Your task to perform on an android device: toggle notifications settings in the gmail app Image 0: 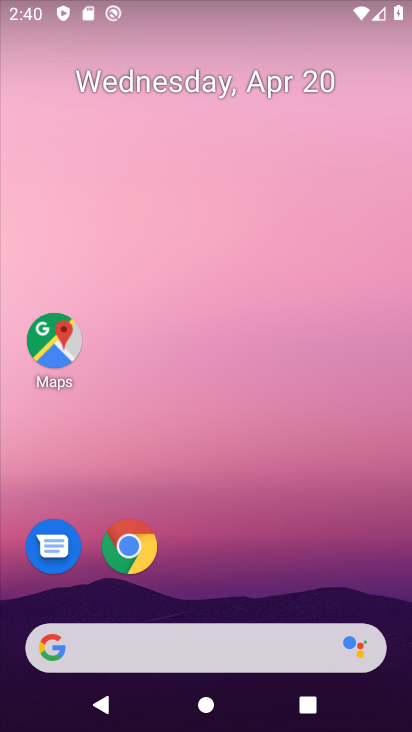
Step 0: drag from (318, 455) to (318, 79)
Your task to perform on an android device: toggle notifications settings in the gmail app Image 1: 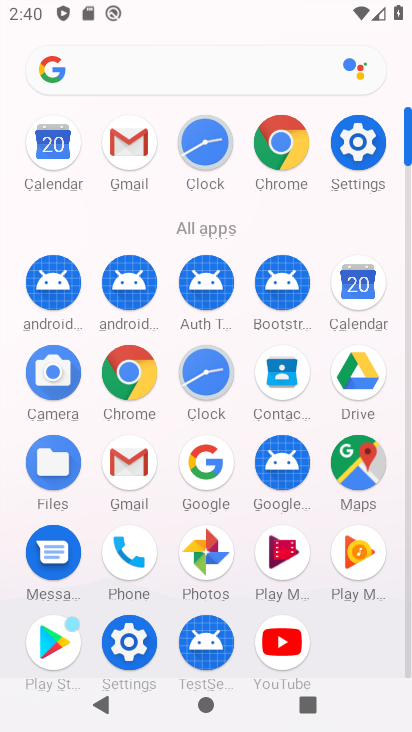
Step 1: click (132, 481)
Your task to perform on an android device: toggle notifications settings in the gmail app Image 2: 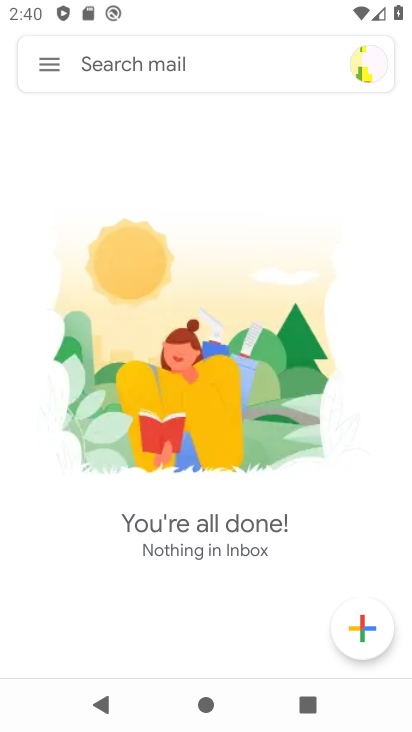
Step 2: click (58, 68)
Your task to perform on an android device: toggle notifications settings in the gmail app Image 3: 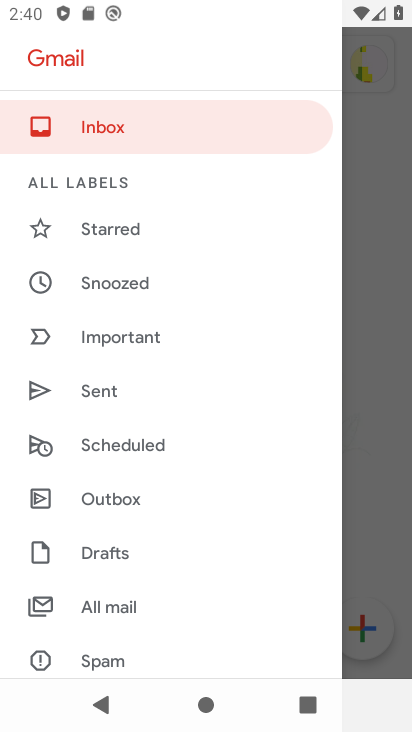
Step 3: drag from (139, 632) to (152, 311)
Your task to perform on an android device: toggle notifications settings in the gmail app Image 4: 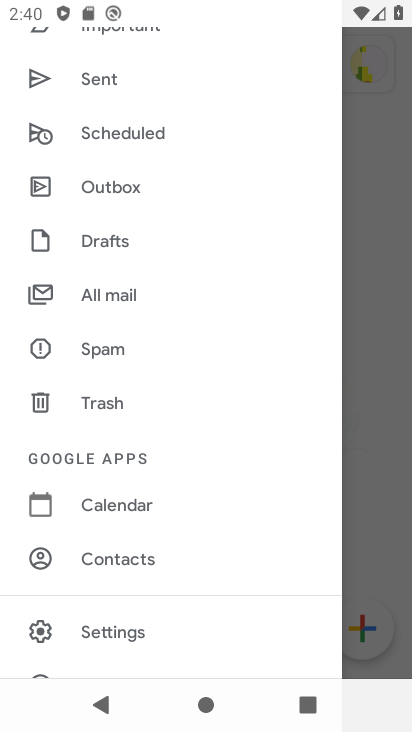
Step 4: click (117, 633)
Your task to perform on an android device: toggle notifications settings in the gmail app Image 5: 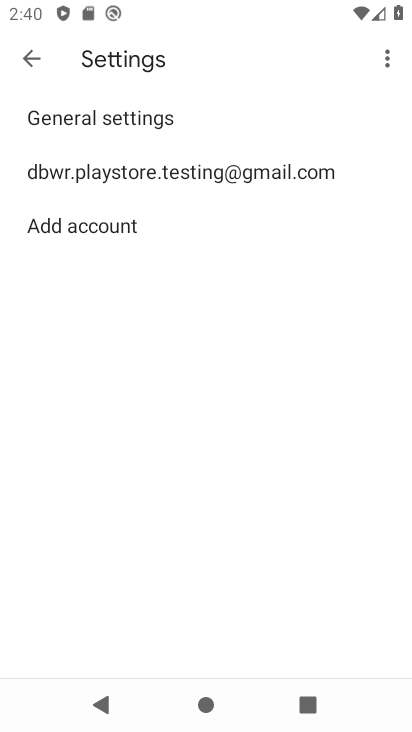
Step 5: click (106, 179)
Your task to perform on an android device: toggle notifications settings in the gmail app Image 6: 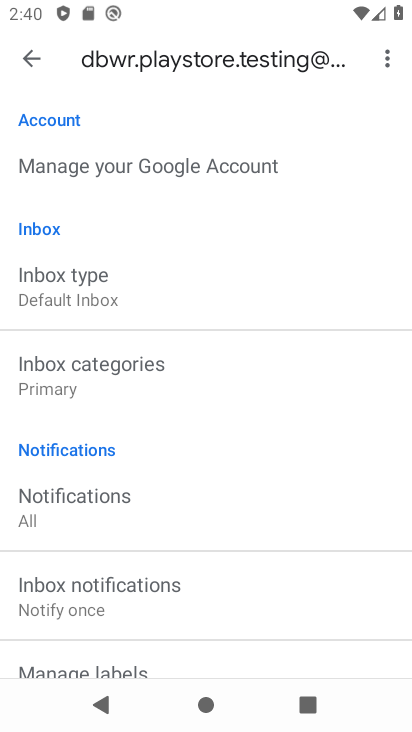
Step 6: click (107, 517)
Your task to perform on an android device: toggle notifications settings in the gmail app Image 7: 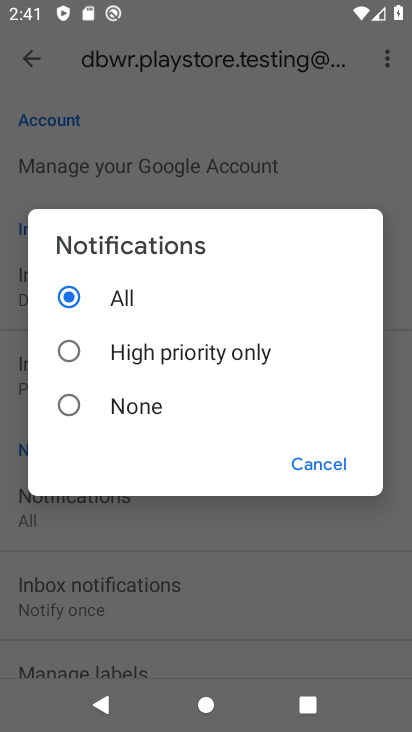
Step 7: click (184, 347)
Your task to perform on an android device: toggle notifications settings in the gmail app Image 8: 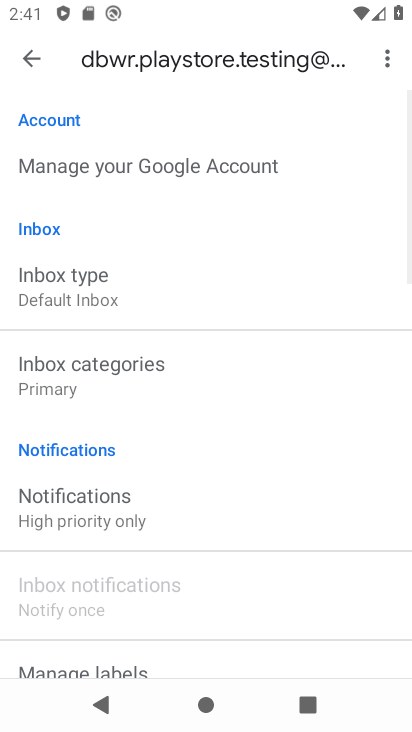
Step 8: task complete